Your task to perform on an android device: Go to battery settings Image 0: 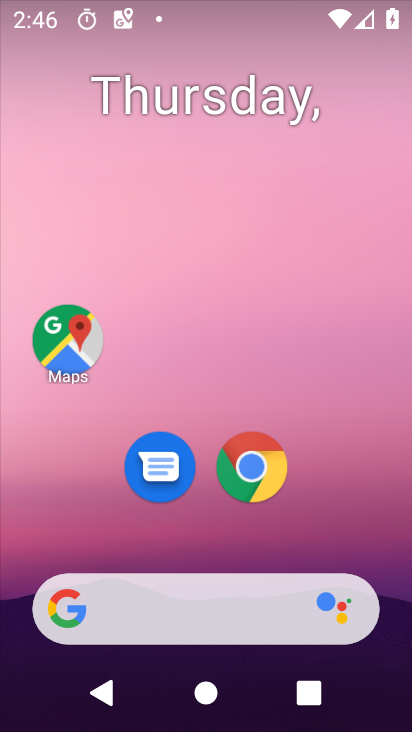
Step 0: drag from (198, 244) to (187, 63)
Your task to perform on an android device: Go to battery settings Image 1: 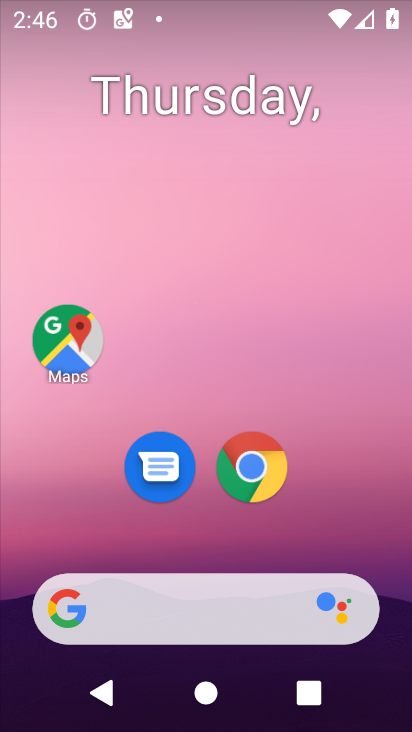
Step 1: drag from (206, 556) to (262, 184)
Your task to perform on an android device: Go to battery settings Image 2: 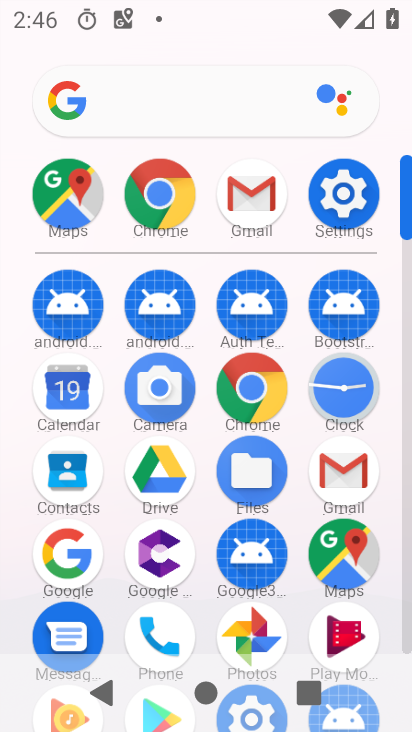
Step 2: click (350, 181)
Your task to perform on an android device: Go to battery settings Image 3: 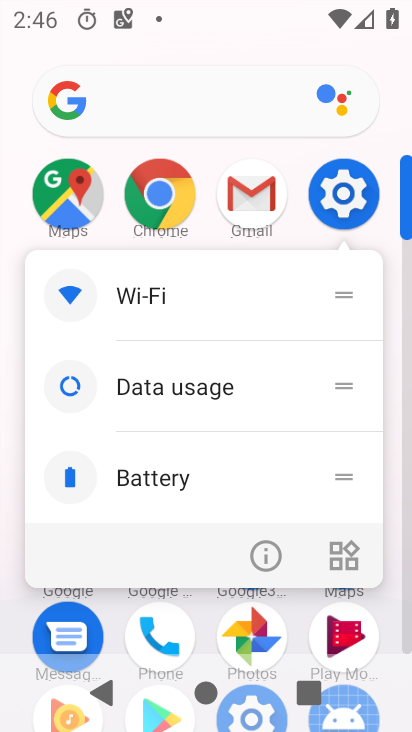
Step 3: click (176, 484)
Your task to perform on an android device: Go to battery settings Image 4: 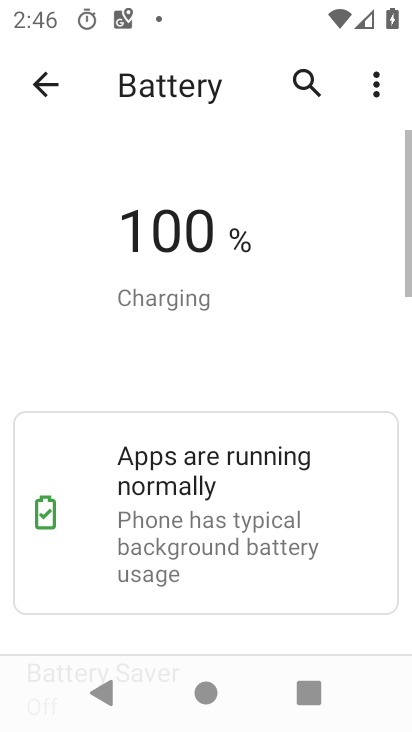
Step 4: task complete